Your task to perform on an android device: Turn on the flashlight Image 0: 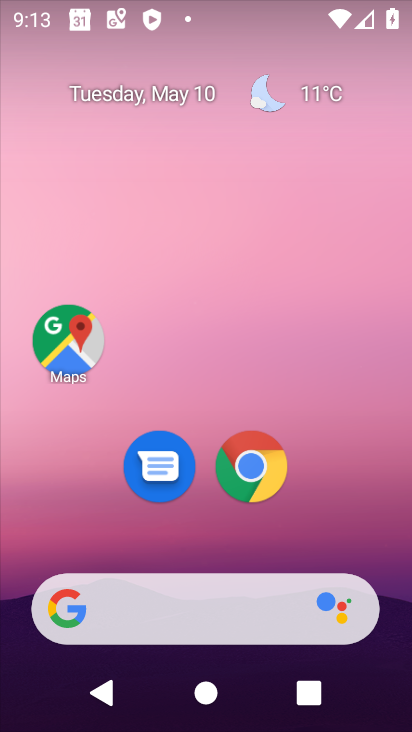
Step 0: drag from (338, 481) to (297, 97)
Your task to perform on an android device: Turn on the flashlight Image 1: 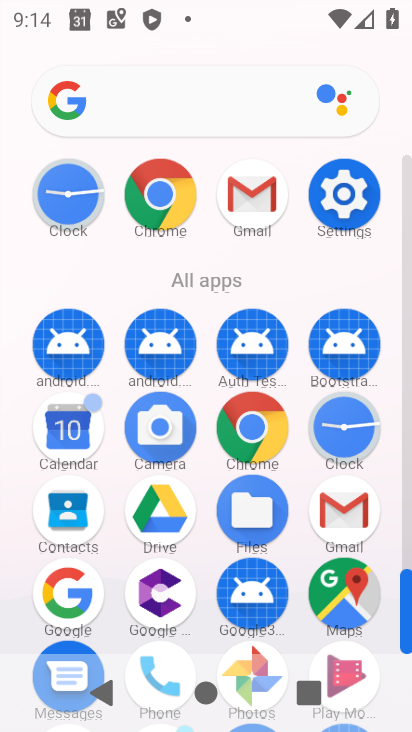
Step 1: click (339, 194)
Your task to perform on an android device: Turn on the flashlight Image 2: 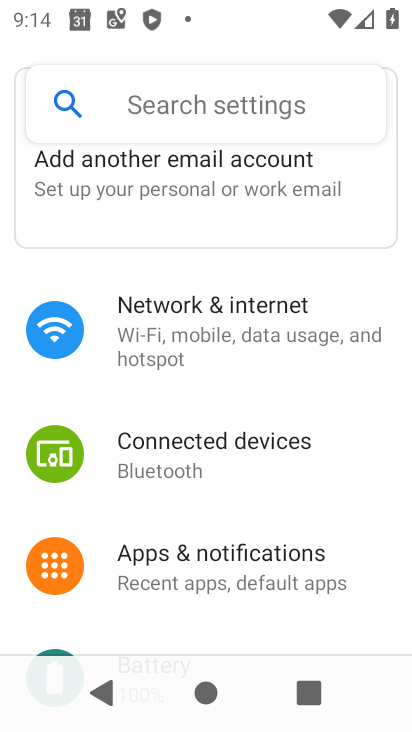
Step 2: task complete